Your task to perform on an android device: change your default location settings in chrome Image 0: 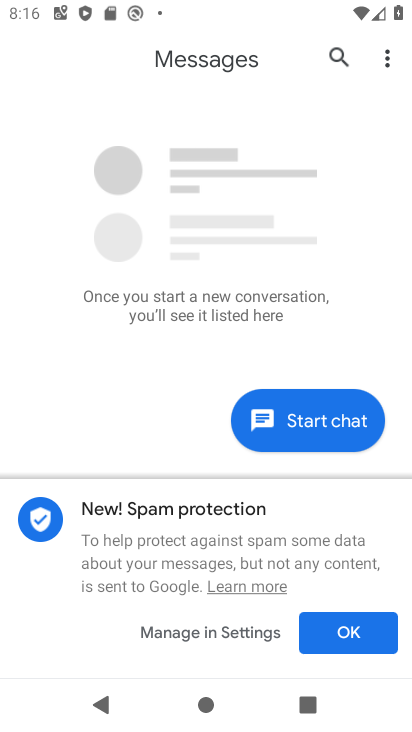
Step 0: press home button
Your task to perform on an android device: change your default location settings in chrome Image 1: 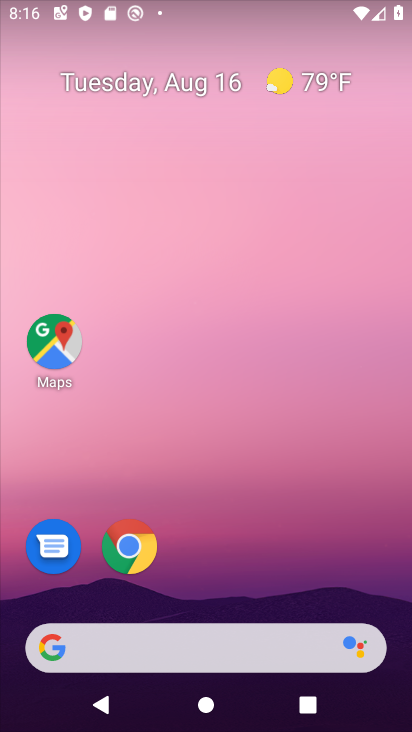
Step 1: click (126, 542)
Your task to perform on an android device: change your default location settings in chrome Image 2: 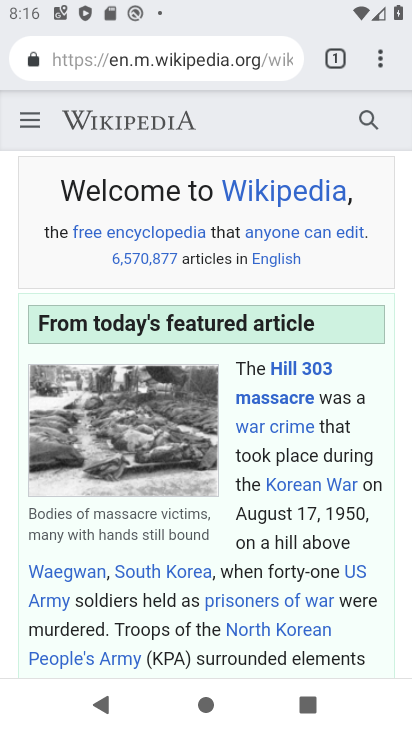
Step 2: click (380, 68)
Your task to perform on an android device: change your default location settings in chrome Image 3: 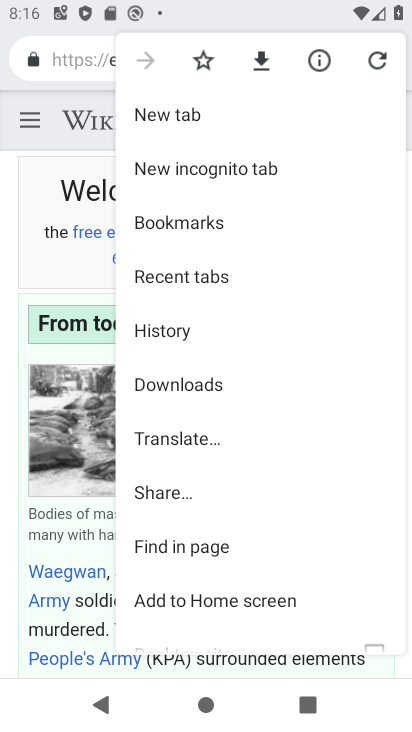
Step 3: drag from (207, 505) to (179, 106)
Your task to perform on an android device: change your default location settings in chrome Image 4: 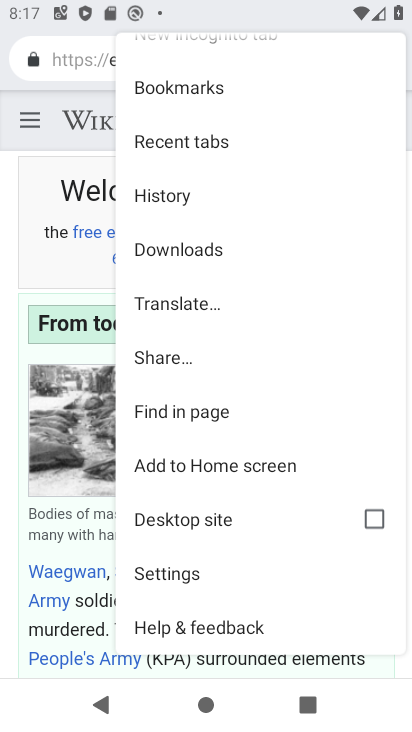
Step 4: click (164, 563)
Your task to perform on an android device: change your default location settings in chrome Image 5: 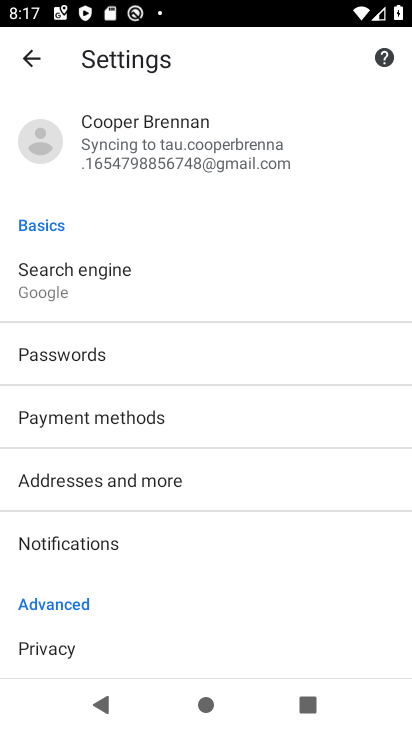
Step 5: drag from (252, 589) to (229, 284)
Your task to perform on an android device: change your default location settings in chrome Image 6: 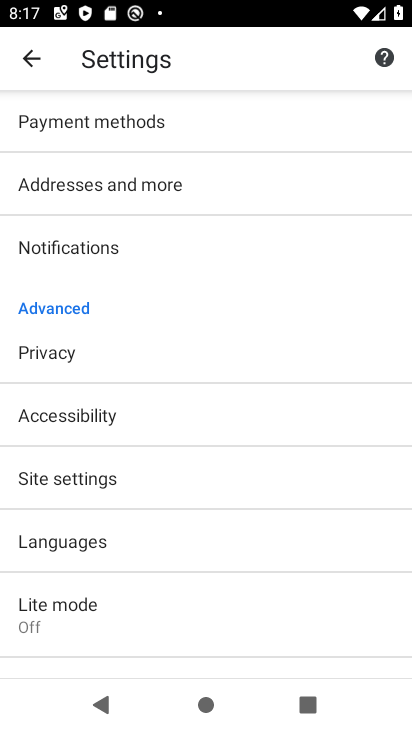
Step 6: click (98, 476)
Your task to perform on an android device: change your default location settings in chrome Image 7: 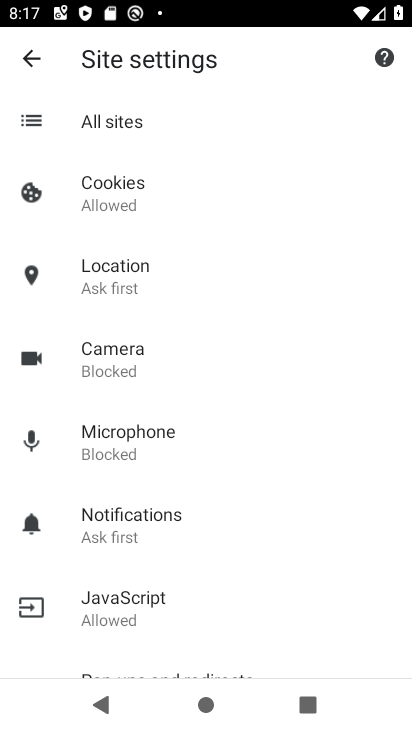
Step 7: click (144, 285)
Your task to perform on an android device: change your default location settings in chrome Image 8: 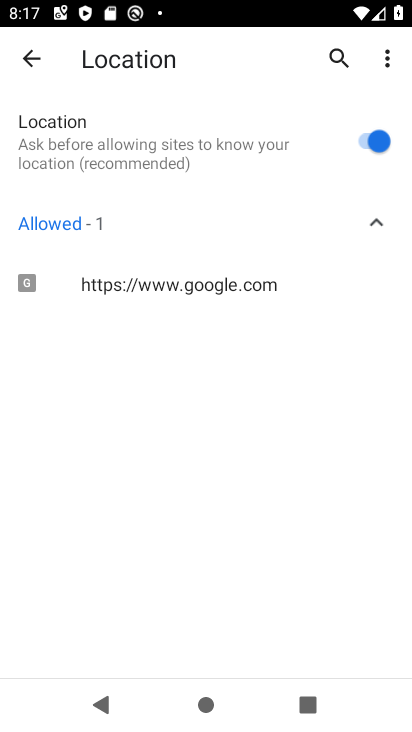
Step 8: click (358, 144)
Your task to perform on an android device: change your default location settings in chrome Image 9: 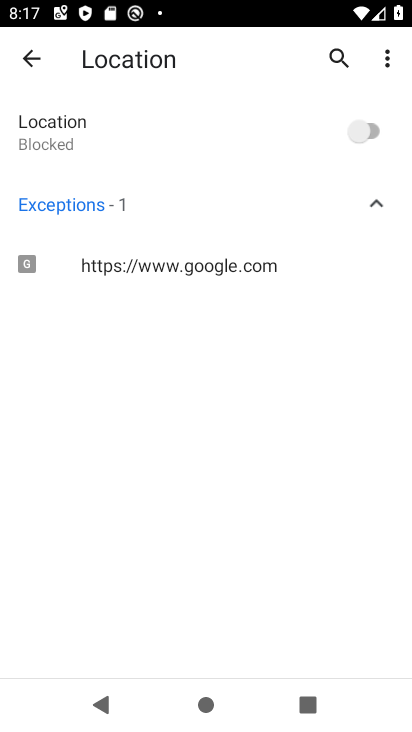
Step 9: task complete